Your task to perform on an android device: change text size in settings app Image 0: 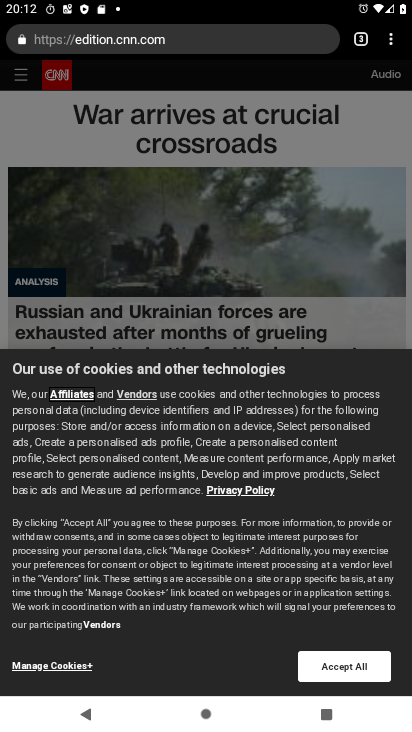
Step 0: press home button
Your task to perform on an android device: change text size in settings app Image 1: 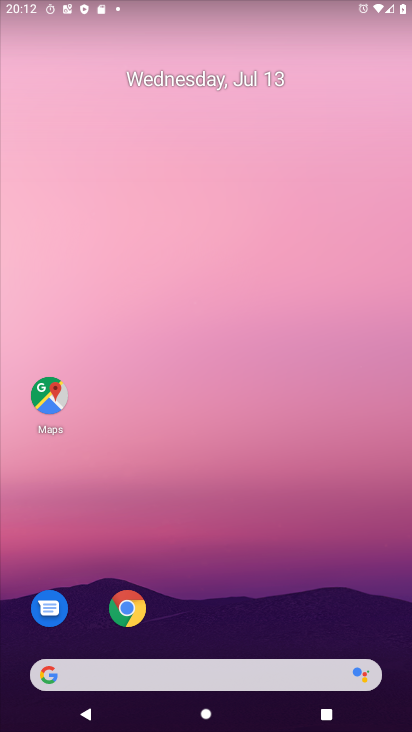
Step 1: drag from (220, 646) to (164, 139)
Your task to perform on an android device: change text size in settings app Image 2: 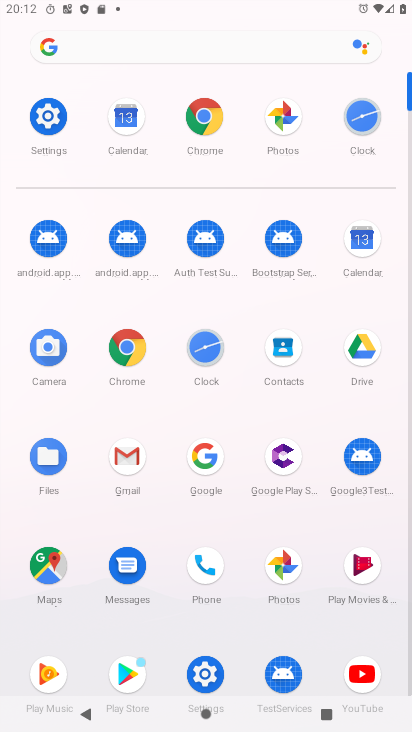
Step 2: click (42, 118)
Your task to perform on an android device: change text size in settings app Image 3: 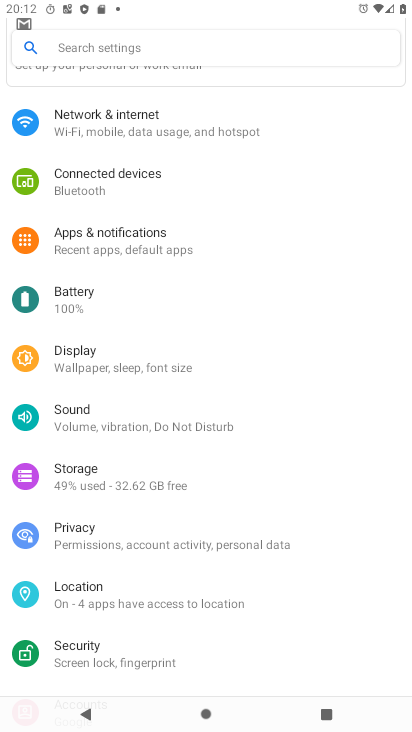
Step 3: drag from (247, 537) to (196, 172)
Your task to perform on an android device: change text size in settings app Image 4: 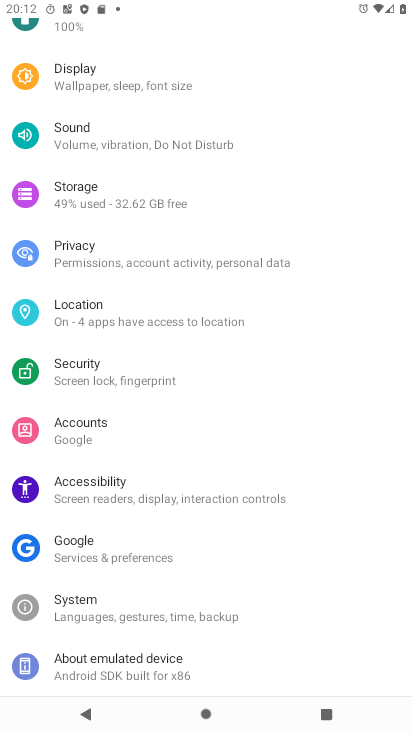
Step 4: drag from (106, 158) to (102, 509)
Your task to perform on an android device: change text size in settings app Image 5: 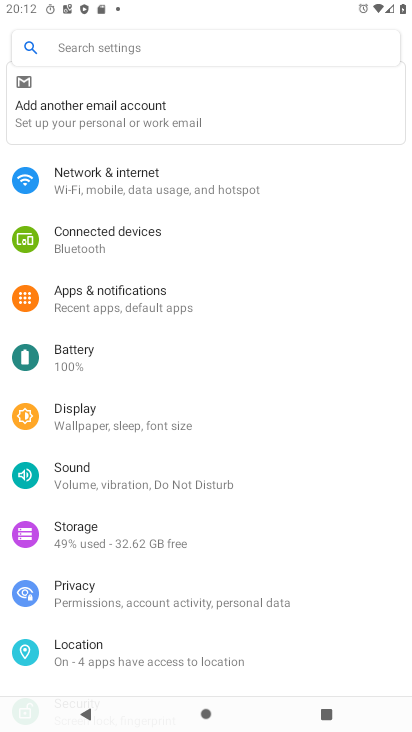
Step 5: click (86, 415)
Your task to perform on an android device: change text size in settings app Image 6: 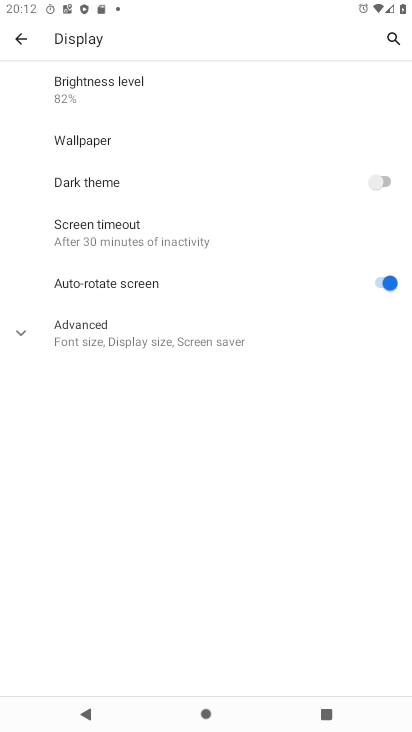
Step 6: click (87, 345)
Your task to perform on an android device: change text size in settings app Image 7: 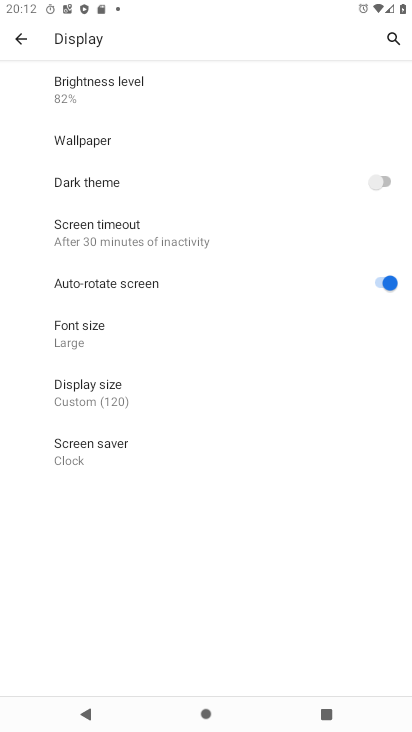
Step 7: click (88, 348)
Your task to perform on an android device: change text size in settings app Image 8: 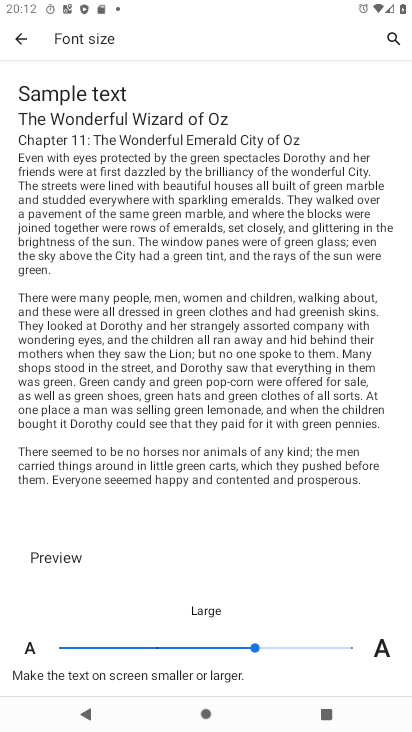
Step 8: click (142, 643)
Your task to perform on an android device: change text size in settings app Image 9: 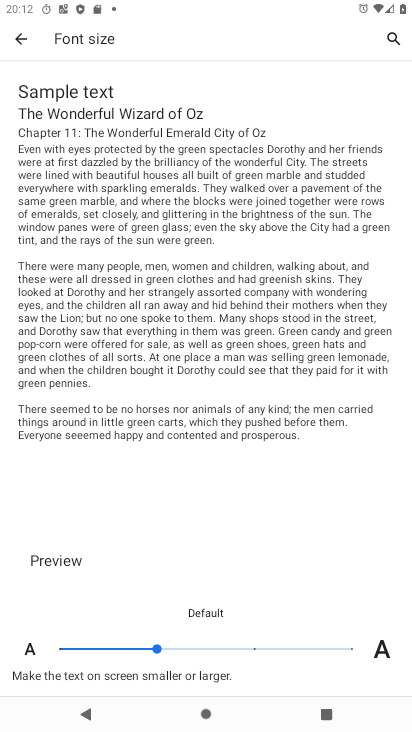
Step 9: task complete